Your task to perform on an android device: See recent photos Image 0: 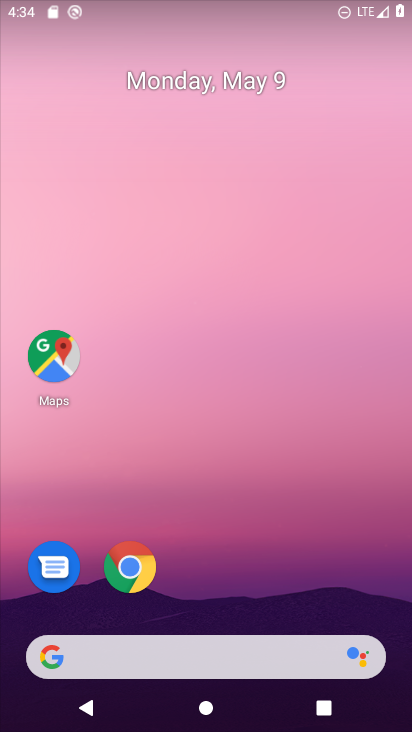
Step 0: drag from (310, 605) to (171, 216)
Your task to perform on an android device: See recent photos Image 1: 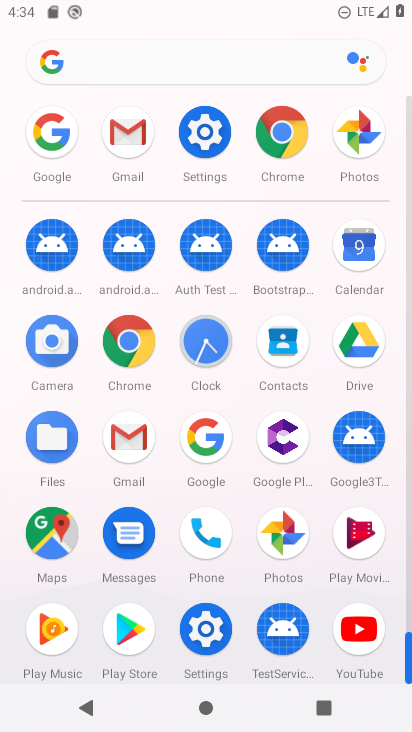
Step 1: click (284, 524)
Your task to perform on an android device: See recent photos Image 2: 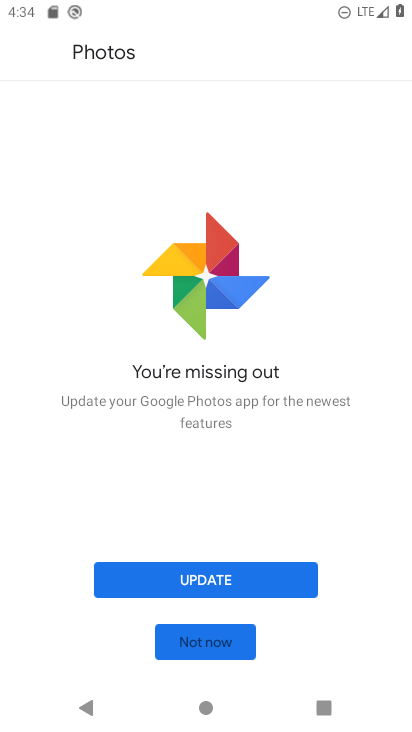
Step 2: click (203, 585)
Your task to perform on an android device: See recent photos Image 3: 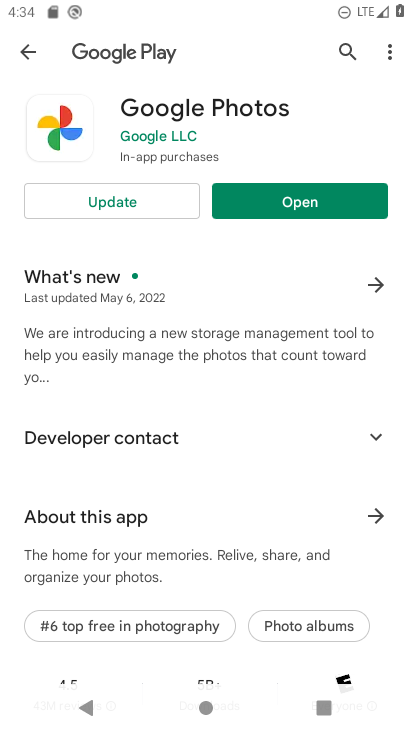
Step 3: click (152, 208)
Your task to perform on an android device: See recent photos Image 4: 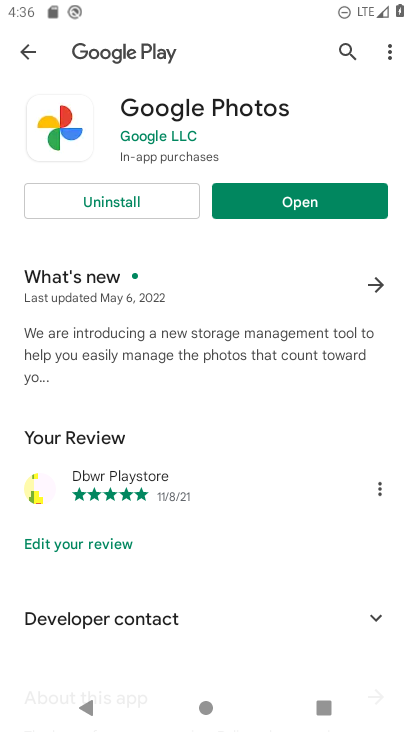
Step 4: click (332, 186)
Your task to perform on an android device: See recent photos Image 5: 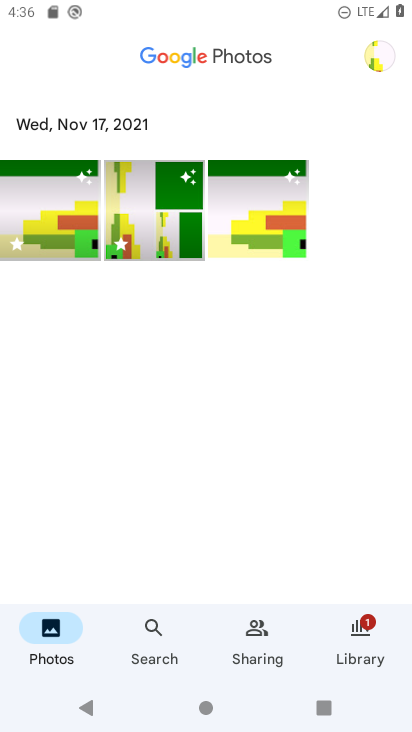
Step 5: click (376, 70)
Your task to perform on an android device: See recent photos Image 6: 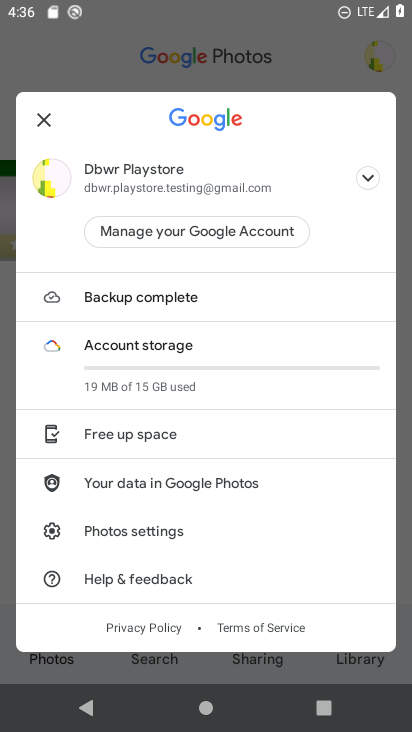
Step 6: click (278, 75)
Your task to perform on an android device: See recent photos Image 7: 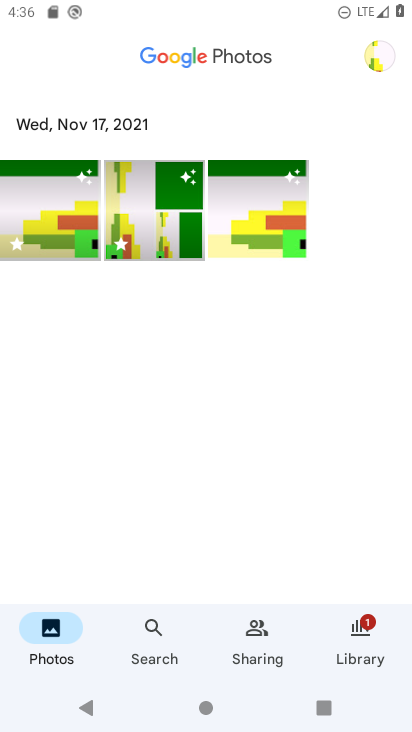
Step 7: click (154, 638)
Your task to perform on an android device: See recent photos Image 8: 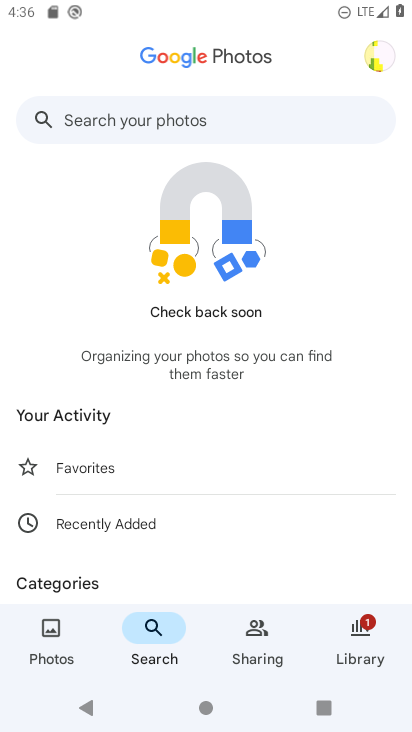
Step 8: drag from (164, 542) to (164, 458)
Your task to perform on an android device: See recent photos Image 9: 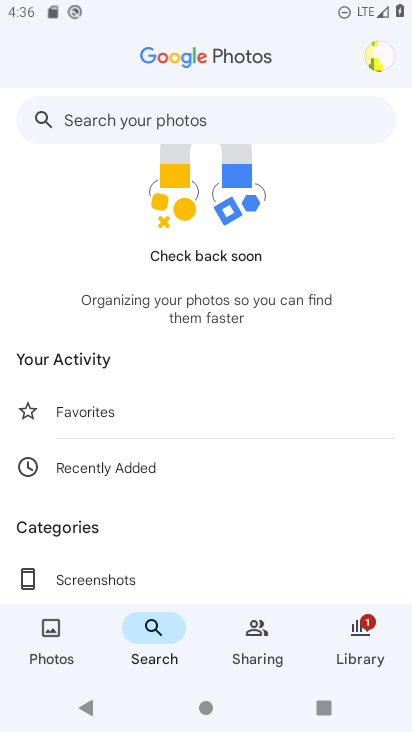
Step 9: click (159, 457)
Your task to perform on an android device: See recent photos Image 10: 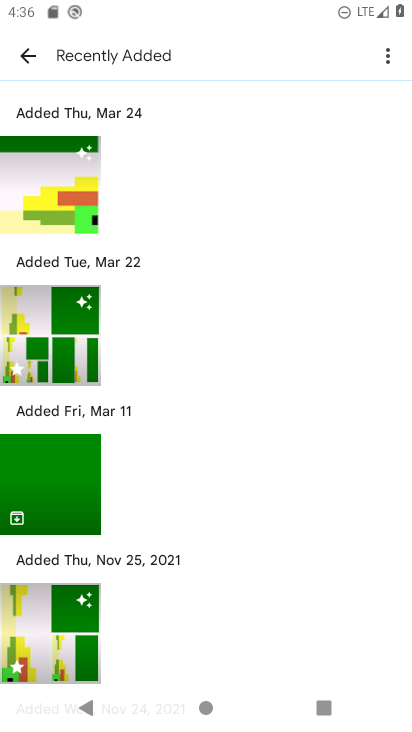
Step 10: task complete